Your task to perform on an android device: Open Chrome and go to settings Image 0: 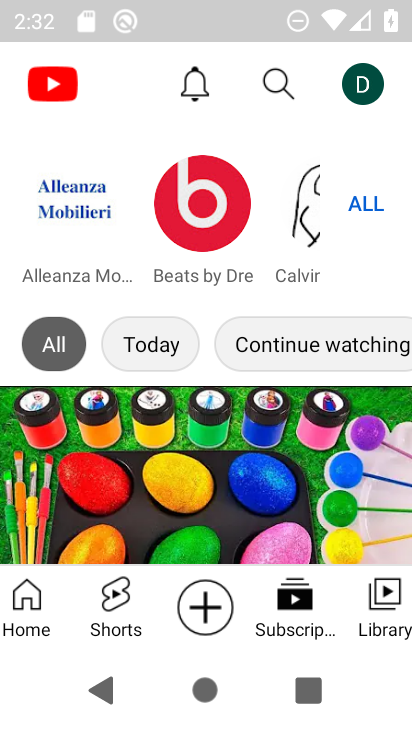
Step 0: press home button
Your task to perform on an android device: Open Chrome and go to settings Image 1: 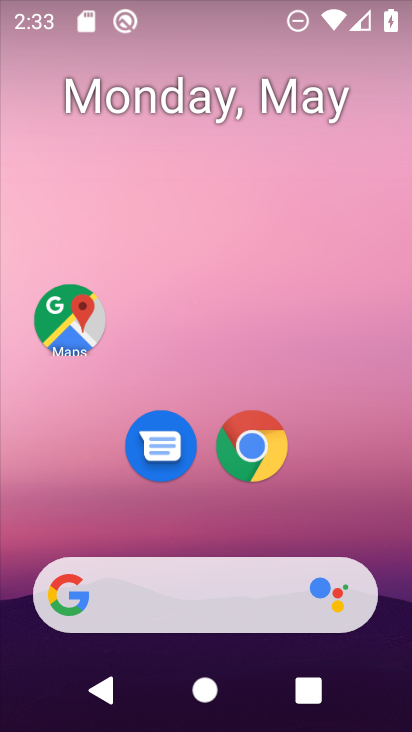
Step 1: click (271, 443)
Your task to perform on an android device: Open Chrome and go to settings Image 2: 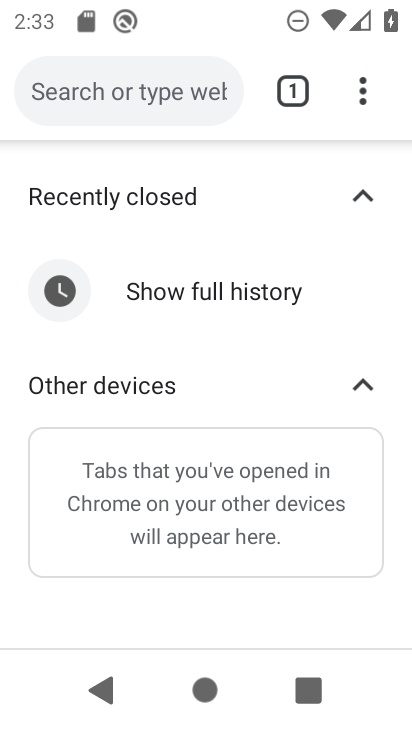
Step 2: click (375, 100)
Your task to perform on an android device: Open Chrome and go to settings Image 3: 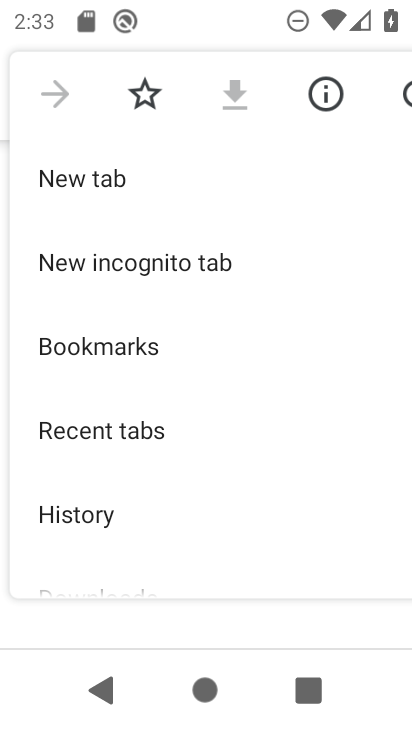
Step 3: drag from (114, 554) to (181, 152)
Your task to perform on an android device: Open Chrome and go to settings Image 4: 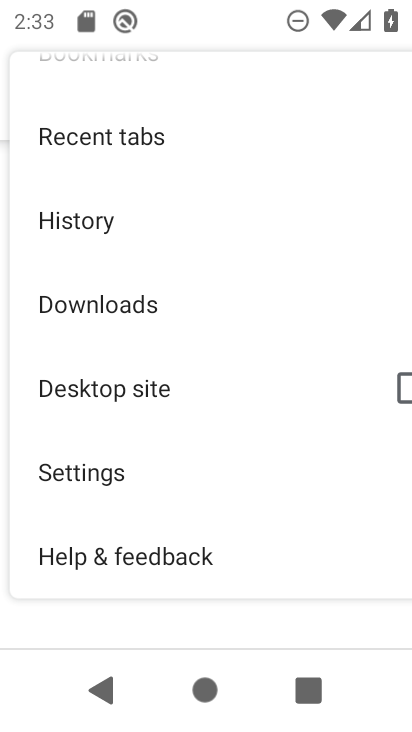
Step 4: click (139, 483)
Your task to perform on an android device: Open Chrome and go to settings Image 5: 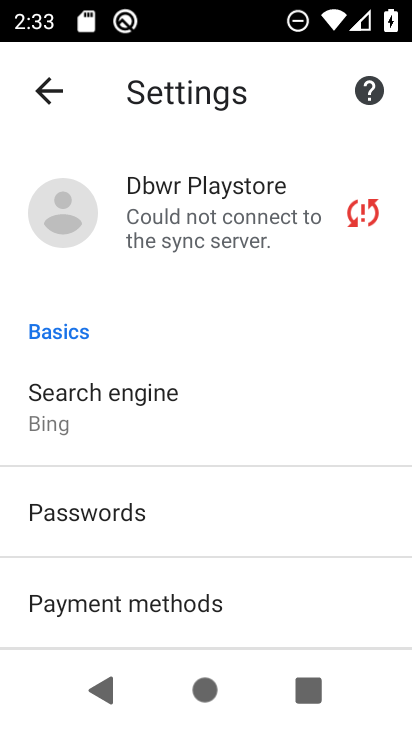
Step 5: task complete